Your task to perform on an android device: turn on priority inbox in the gmail app Image 0: 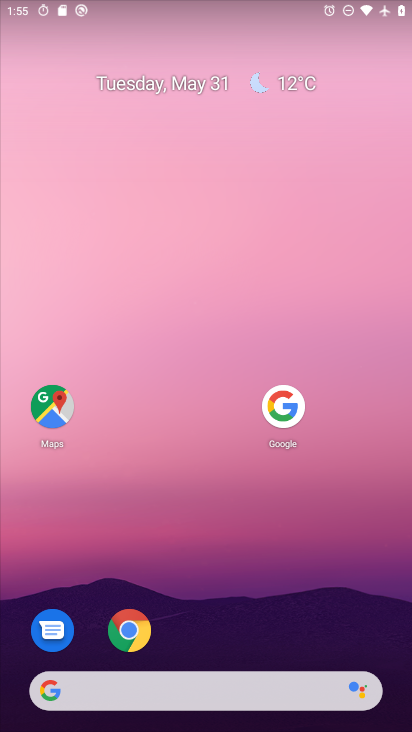
Step 0: press home button
Your task to perform on an android device: turn on priority inbox in the gmail app Image 1: 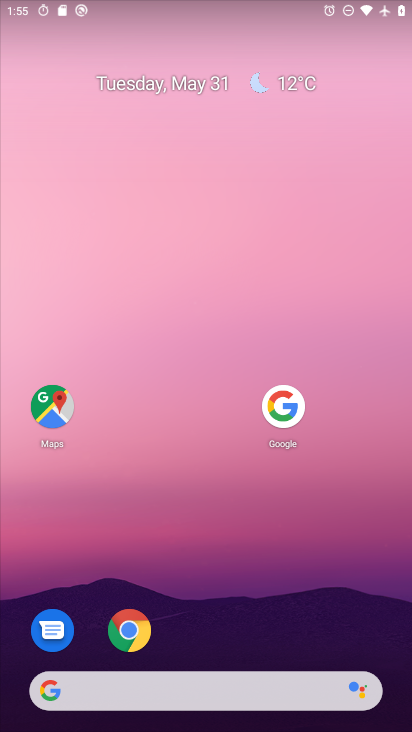
Step 1: drag from (128, 692) to (330, 123)
Your task to perform on an android device: turn on priority inbox in the gmail app Image 2: 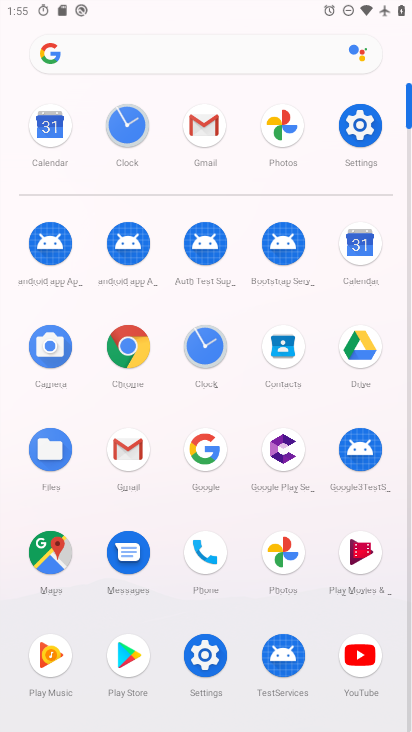
Step 2: click (205, 124)
Your task to perform on an android device: turn on priority inbox in the gmail app Image 3: 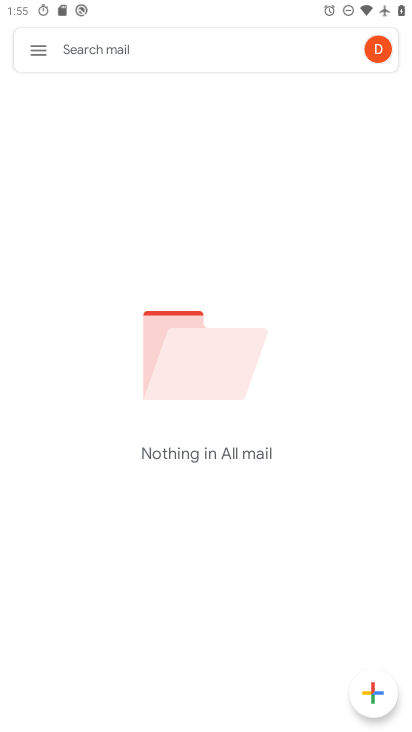
Step 3: click (37, 45)
Your task to perform on an android device: turn on priority inbox in the gmail app Image 4: 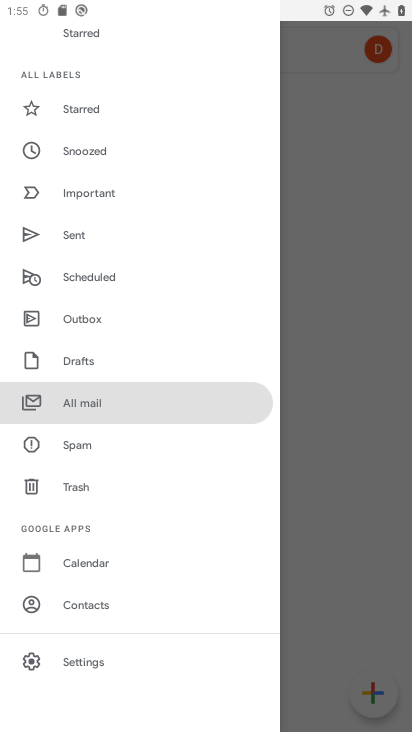
Step 4: click (97, 665)
Your task to perform on an android device: turn on priority inbox in the gmail app Image 5: 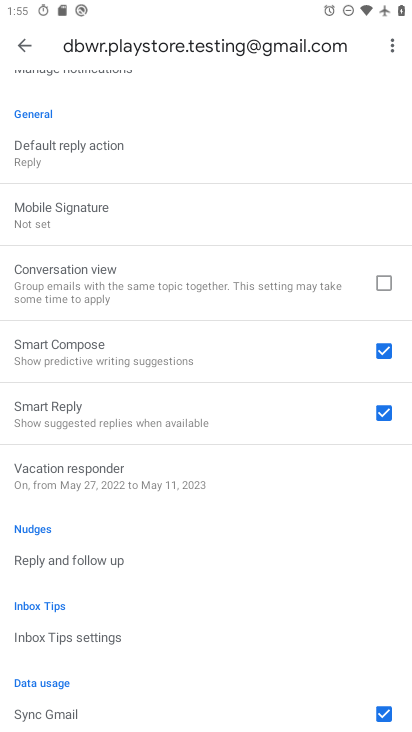
Step 5: drag from (246, 140) to (196, 695)
Your task to perform on an android device: turn on priority inbox in the gmail app Image 6: 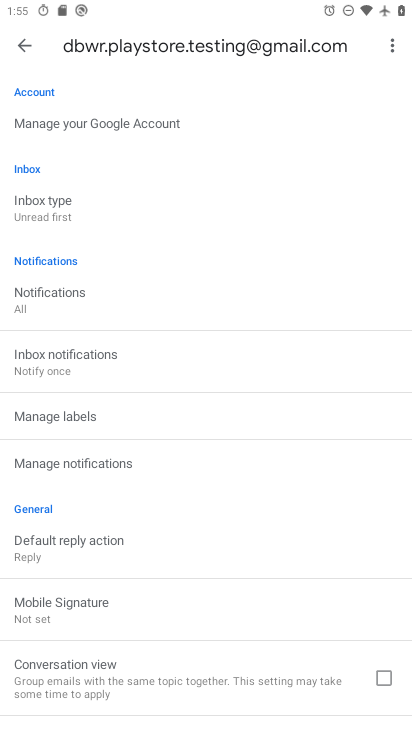
Step 6: click (31, 214)
Your task to perform on an android device: turn on priority inbox in the gmail app Image 7: 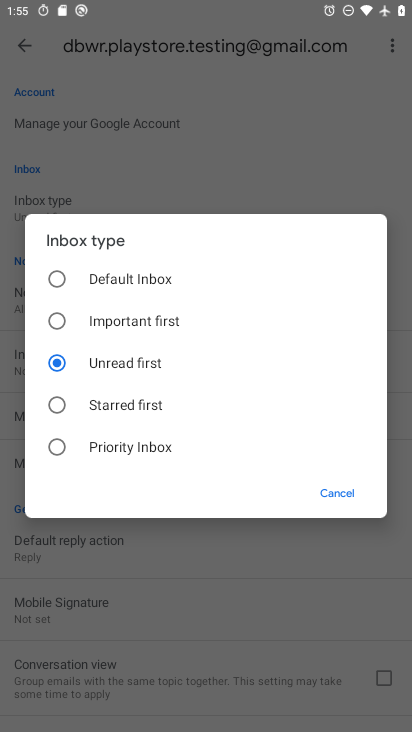
Step 7: click (58, 445)
Your task to perform on an android device: turn on priority inbox in the gmail app Image 8: 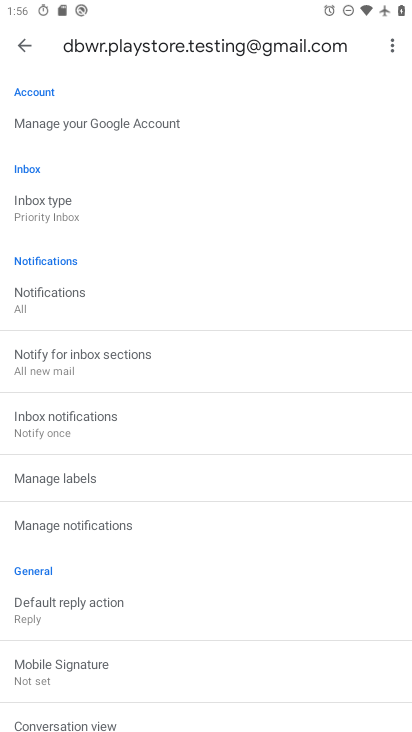
Step 8: task complete